Your task to perform on an android device: Open sound settings Image 0: 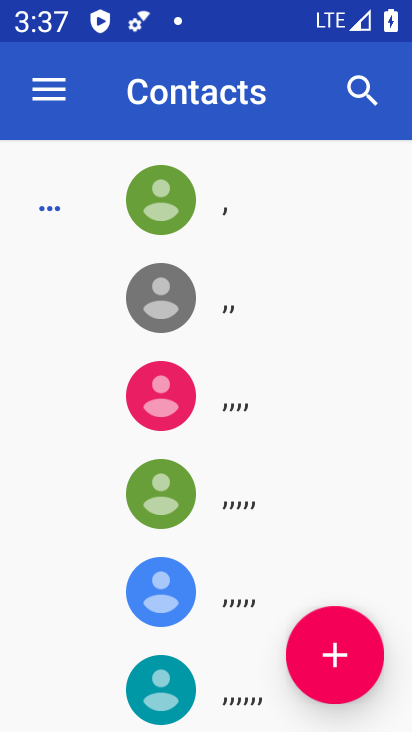
Step 0: press home button
Your task to perform on an android device: Open sound settings Image 1: 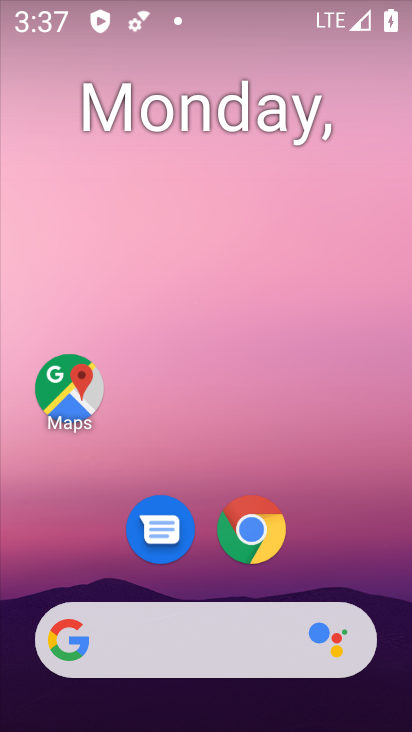
Step 1: drag from (195, 615) to (148, 164)
Your task to perform on an android device: Open sound settings Image 2: 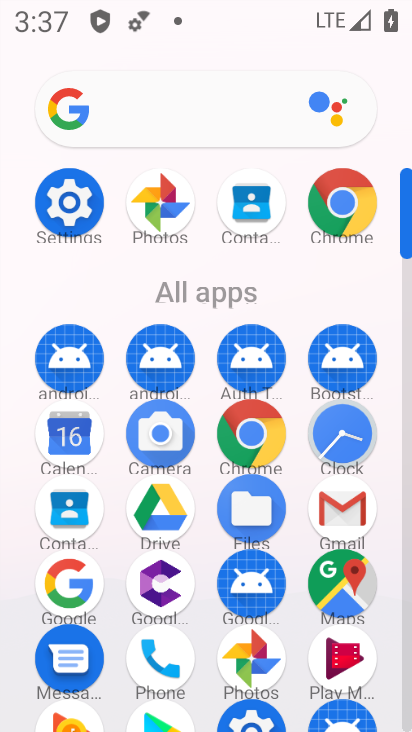
Step 2: click (56, 191)
Your task to perform on an android device: Open sound settings Image 3: 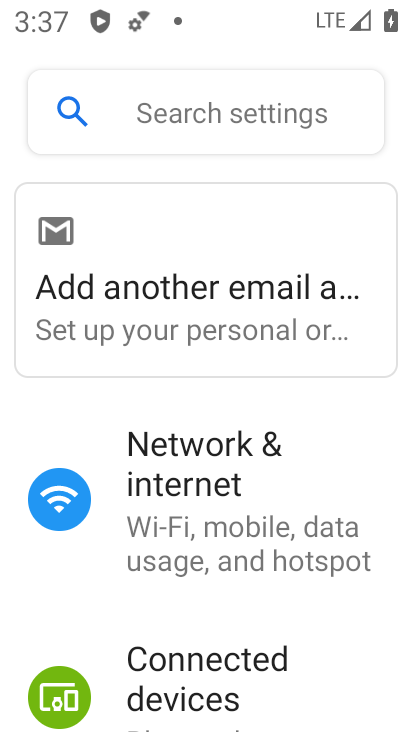
Step 3: drag from (227, 534) to (184, 0)
Your task to perform on an android device: Open sound settings Image 4: 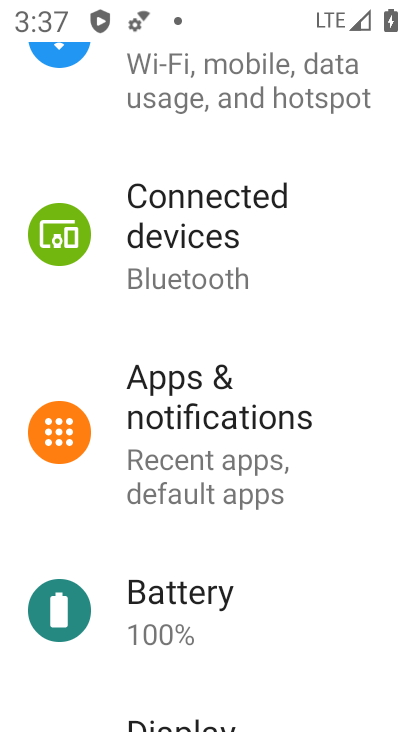
Step 4: drag from (243, 477) to (251, 52)
Your task to perform on an android device: Open sound settings Image 5: 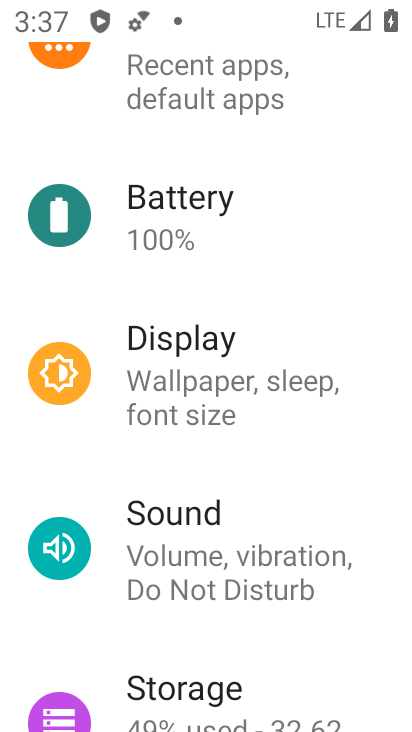
Step 5: click (196, 528)
Your task to perform on an android device: Open sound settings Image 6: 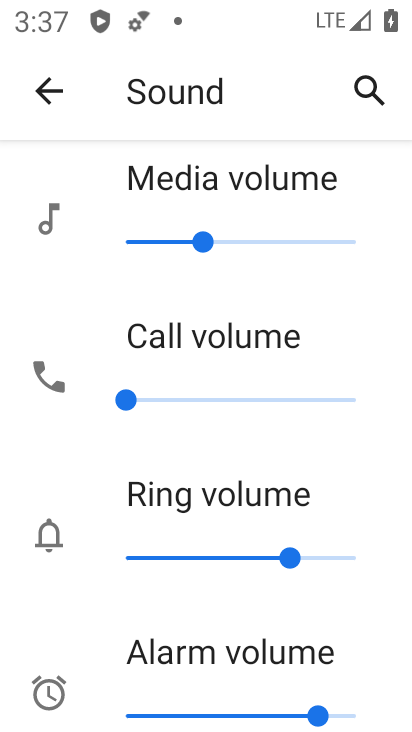
Step 6: task complete